Your task to perform on an android device: turn off airplane mode Image 0: 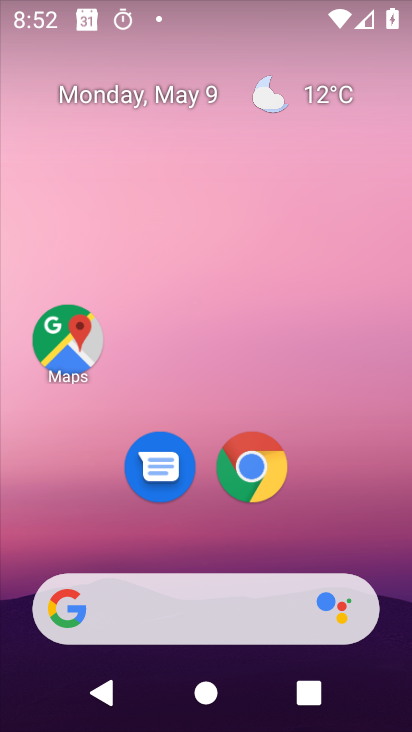
Step 0: drag from (371, 521) to (360, 1)
Your task to perform on an android device: turn off airplane mode Image 1: 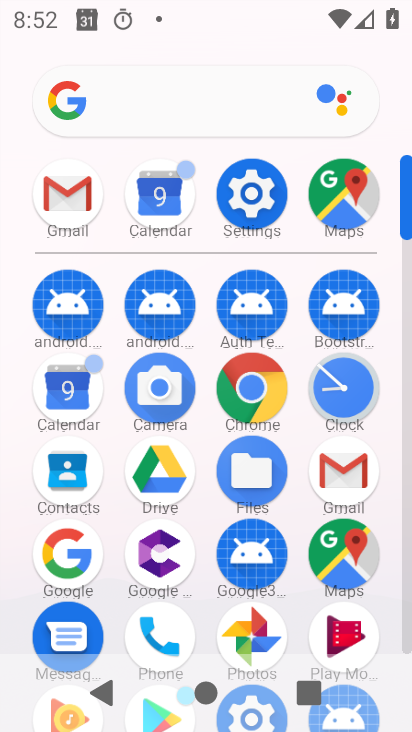
Step 1: click (241, 197)
Your task to perform on an android device: turn off airplane mode Image 2: 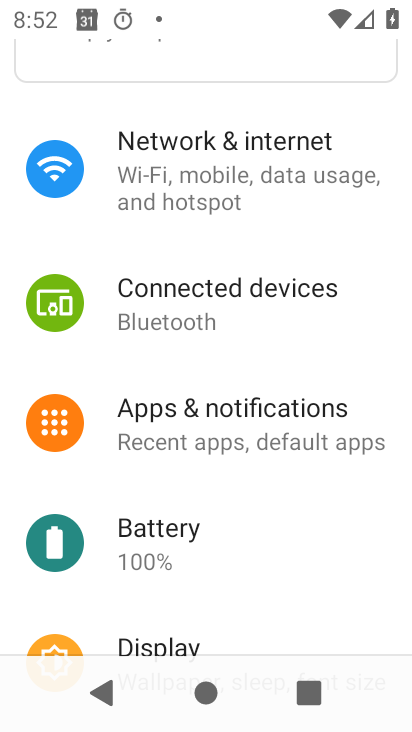
Step 2: click (217, 185)
Your task to perform on an android device: turn off airplane mode Image 3: 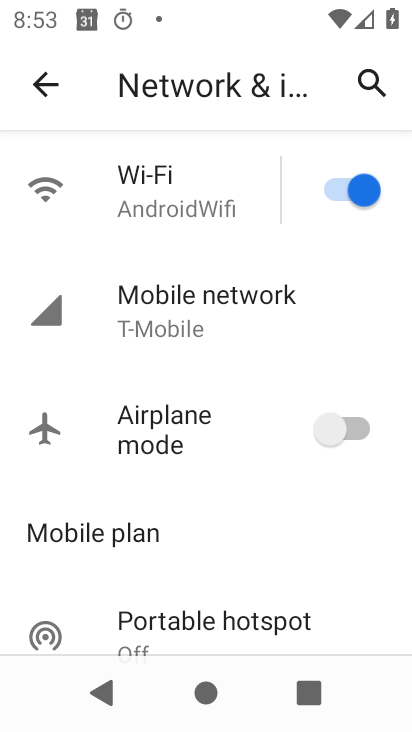
Step 3: task complete